Your task to perform on an android device: Open Google Chrome Image 0: 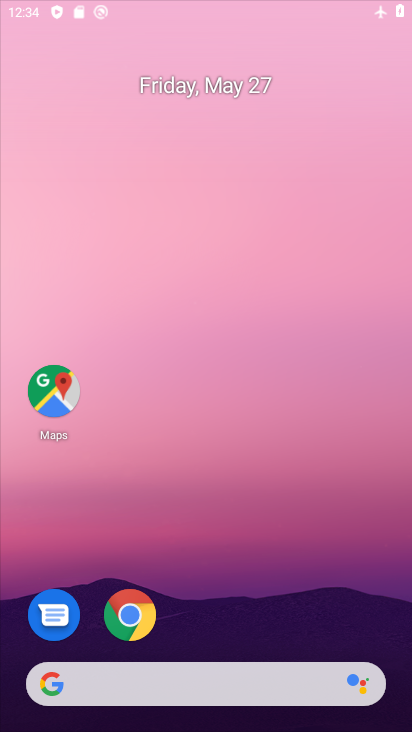
Step 0: press home button
Your task to perform on an android device: Open Google Chrome Image 1: 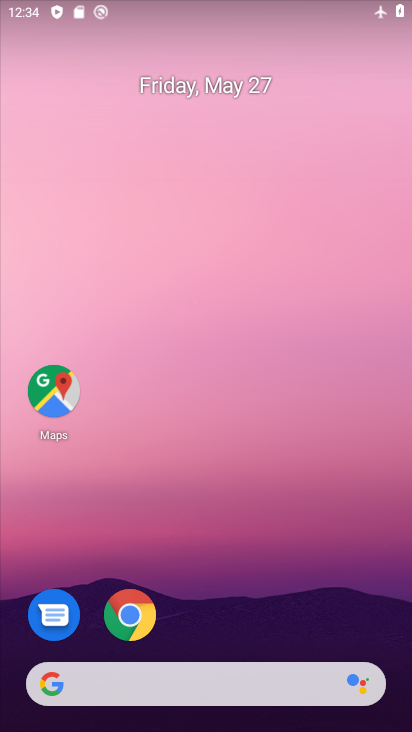
Step 1: click (131, 616)
Your task to perform on an android device: Open Google Chrome Image 2: 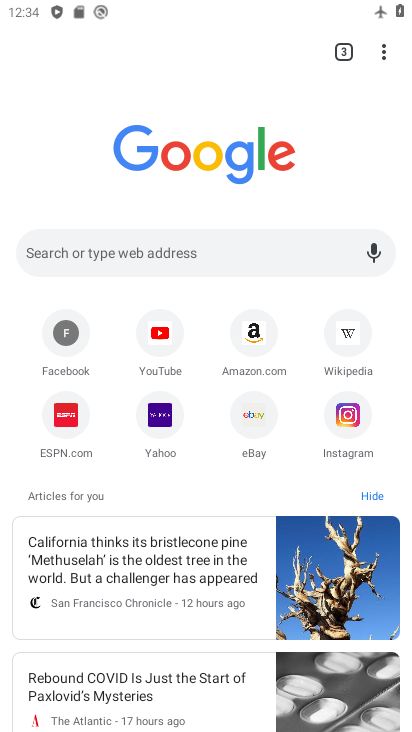
Step 2: task complete